Your task to perform on an android device: stop showing notifications on the lock screen Image 0: 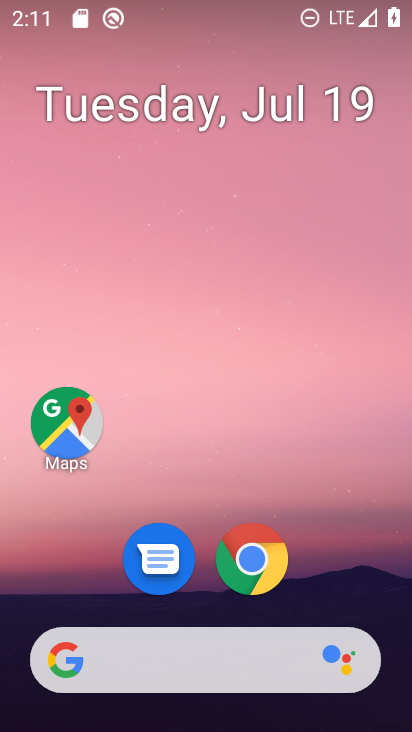
Step 0: drag from (235, 620) to (201, 254)
Your task to perform on an android device: stop showing notifications on the lock screen Image 1: 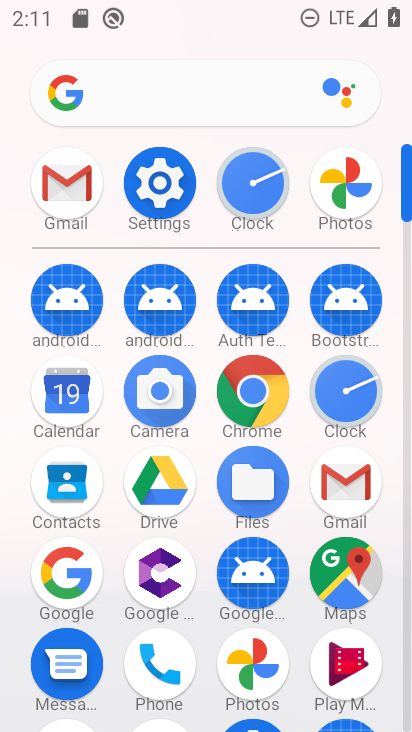
Step 1: click (176, 182)
Your task to perform on an android device: stop showing notifications on the lock screen Image 2: 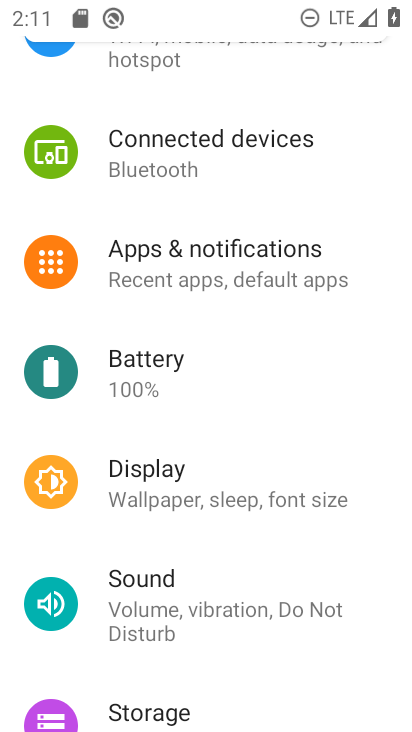
Step 2: drag from (202, 552) to (210, 384)
Your task to perform on an android device: stop showing notifications on the lock screen Image 3: 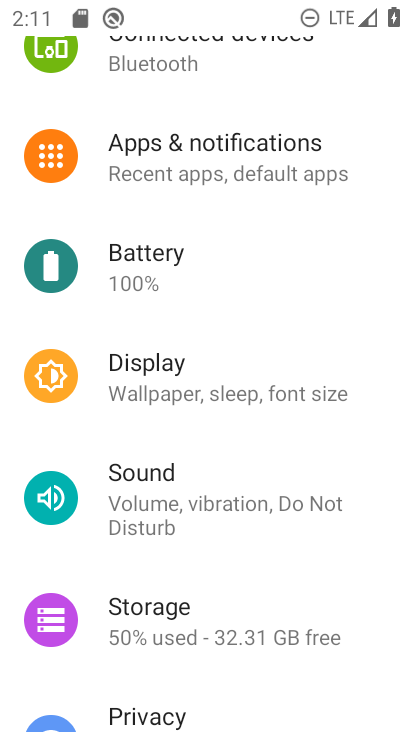
Step 3: click (263, 174)
Your task to perform on an android device: stop showing notifications on the lock screen Image 4: 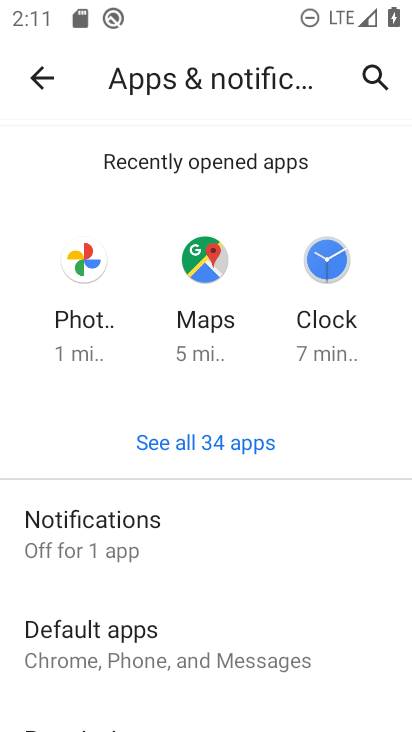
Step 4: click (157, 554)
Your task to perform on an android device: stop showing notifications on the lock screen Image 5: 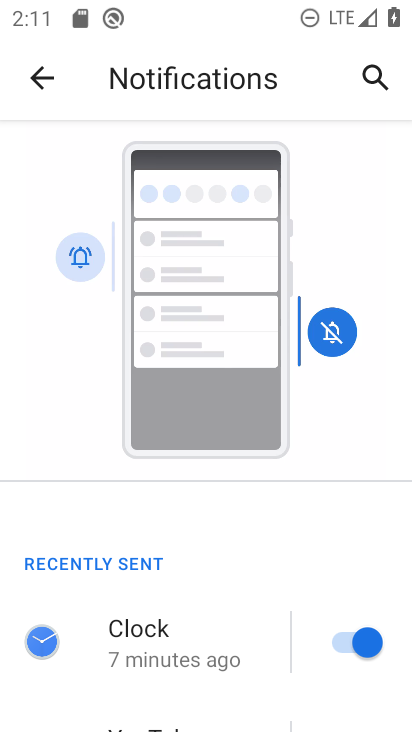
Step 5: drag from (177, 608) to (213, 69)
Your task to perform on an android device: stop showing notifications on the lock screen Image 6: 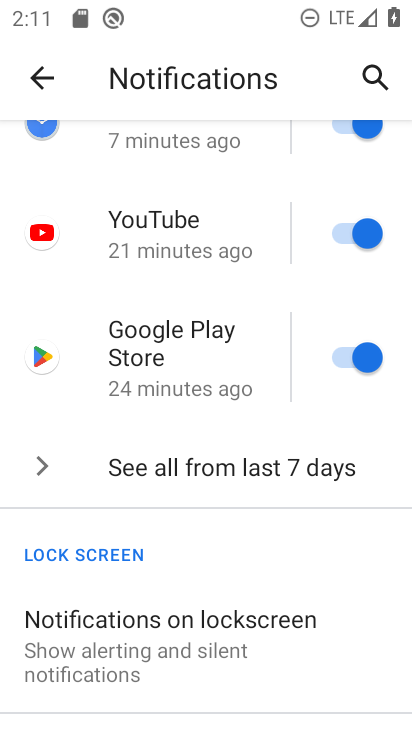
Step 6: click (134, 643)
Your task to perform on an android device: stop showing notifications on the lock screen Image 7: 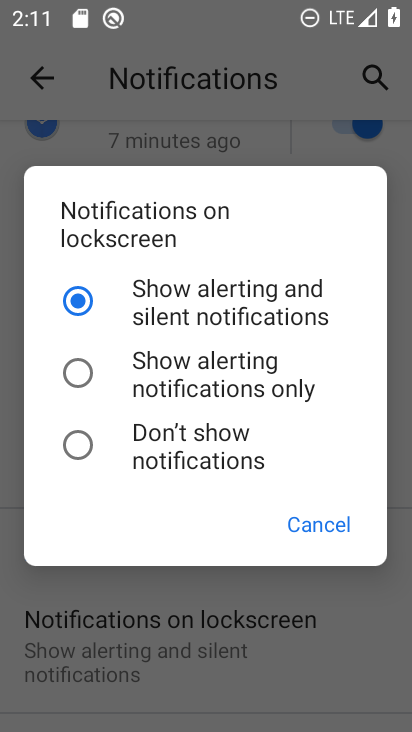
Step 7: click (153, 441)
Your task to perform on an android device: stop showing notifications on the lock screen Image 8: 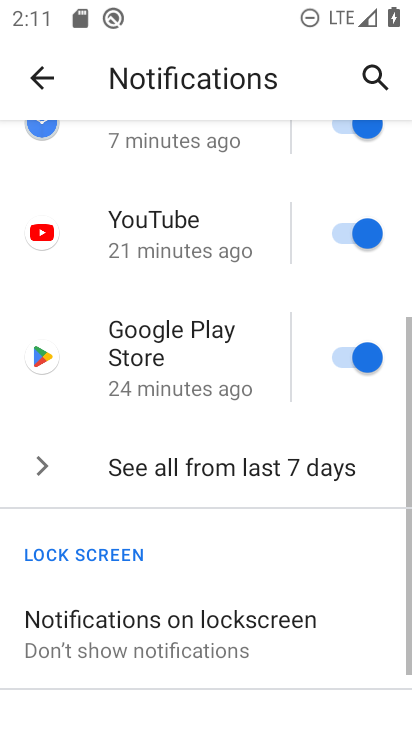
Step 8: task complete